Your task to perform on an android device: What's the weather going to be this weekend? Image 0: 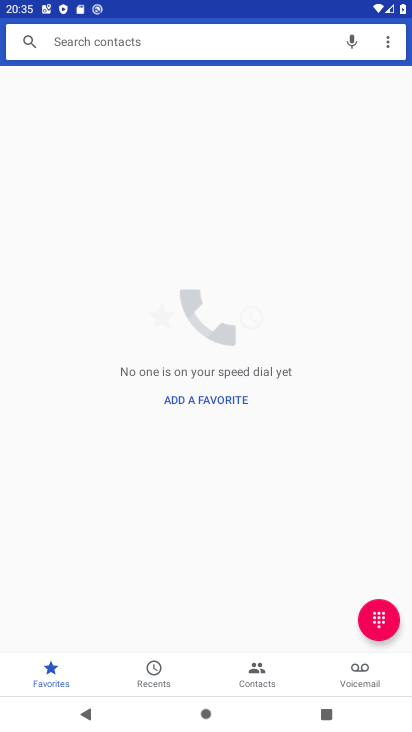
Step 0: press home button
Your task to perform on an android device: What's the weather going to be this weekend? Image 1: 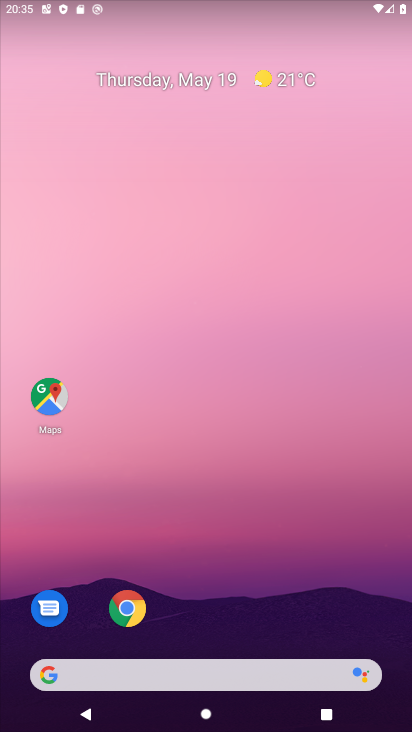
Step 1: drag from (235, 478) to (161, 58)
Your task to perform on an android device: What's the weather going to be this weekend? Image 2: 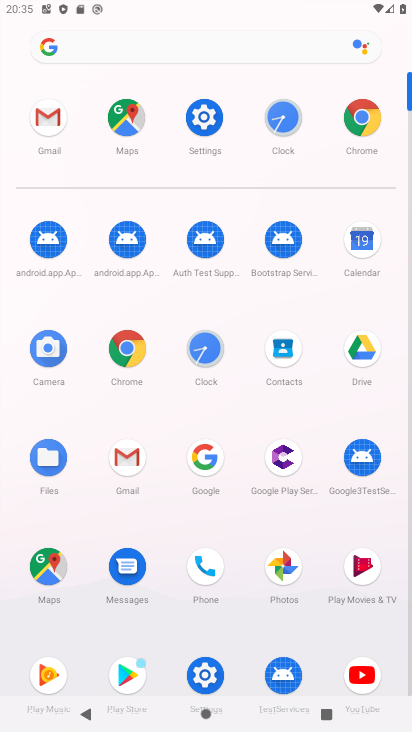
Step 2: click (56, 39)
Your task to perform on an android device: What's the weather going to be this weekend? Image 3: 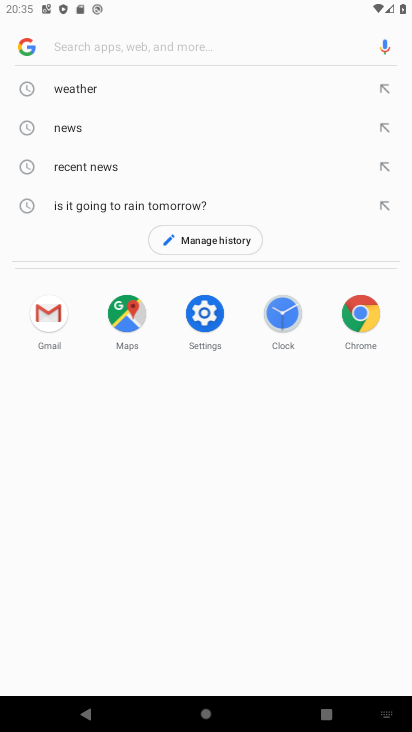
Step 3: click (88, 90)
Your task to perform on an android device: What's the weather going to be this weekend? Image 4: 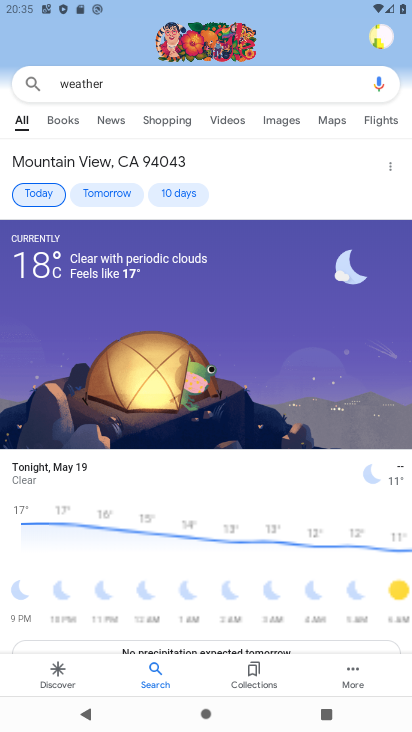
Step 4: click (171, 192)
Your task to perform on an android device: What's the weather going to be this weekend? Image 5: 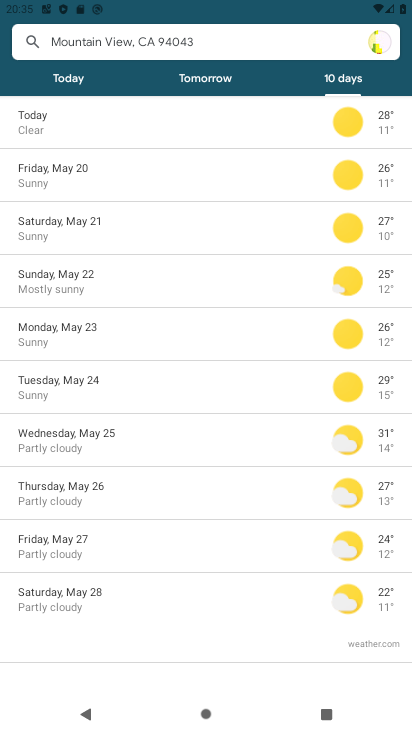
Step 5: task complete